Your task to perform on an android device: Search for sushi restaurants on Maps Image 0: 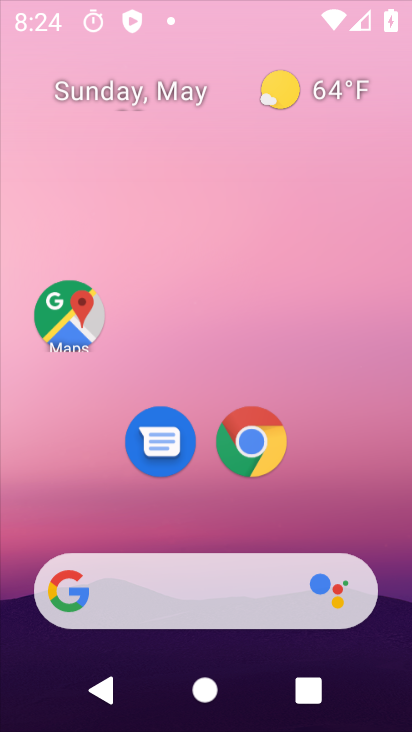
Step 0: click (320, 80)
Your task to perform on an android device: Search for sushi restaurants on Maps Image 1: 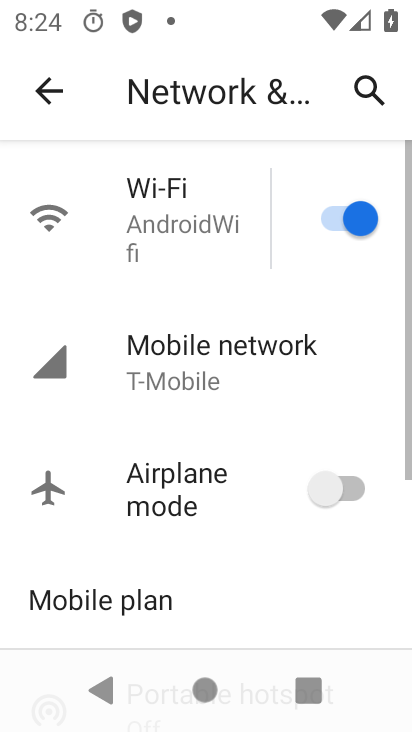
Step 1: click (298, 142)
Your task to perform on an android device: Search for sushi restaurants on Maps Image 2: 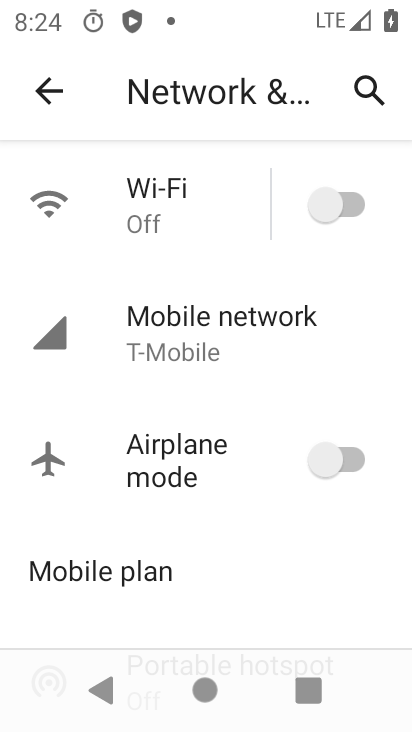
Step 2: press home button
Your task to perform on an android device: Search for sushi restaurants on Maps Image 3: 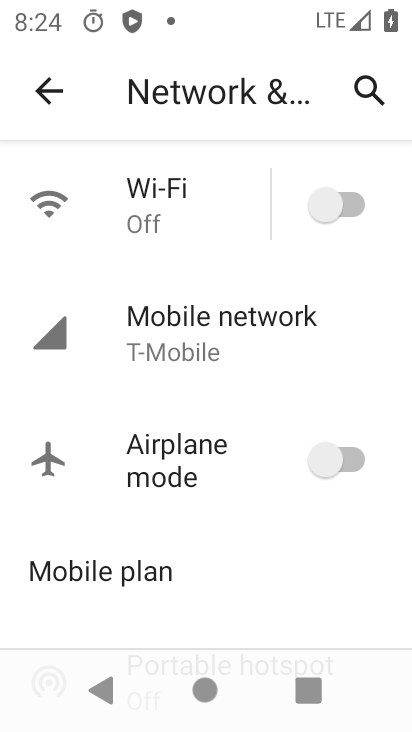
Step 3: drag from (325, 151) to (396, 0)
Your task to perform on an android device: Search for sushi restaurants on Maps Image 4: 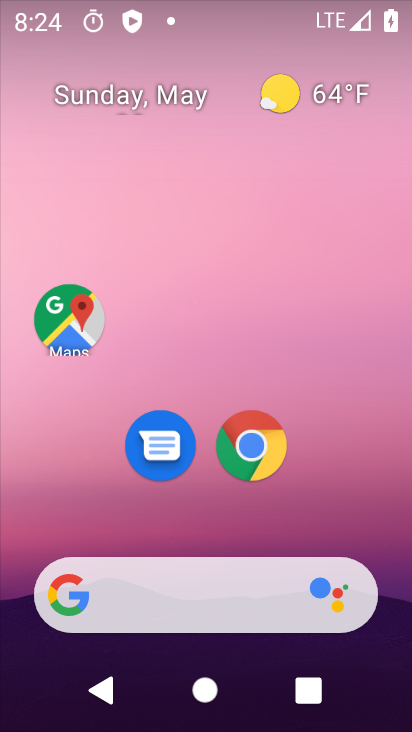
Step 4: drag from (202, 522) to (239, 19)
Your task to perform on an android device: Search for sushi restaurants on Maps Image 5: 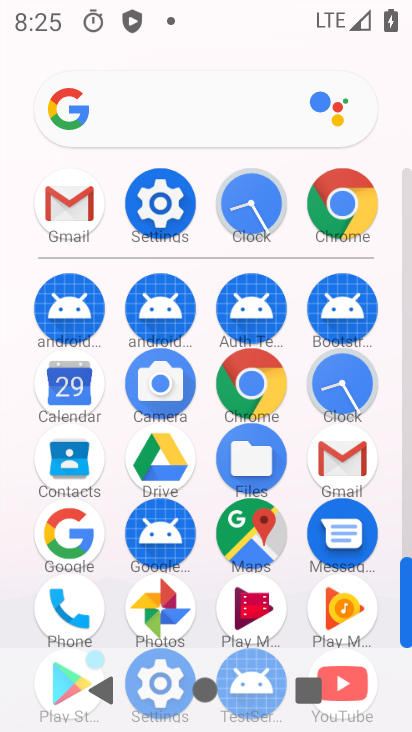
Step 5: click (263, 537)
Your task to perform on an android device: Search for sushi restaurants on Maps Image 6: 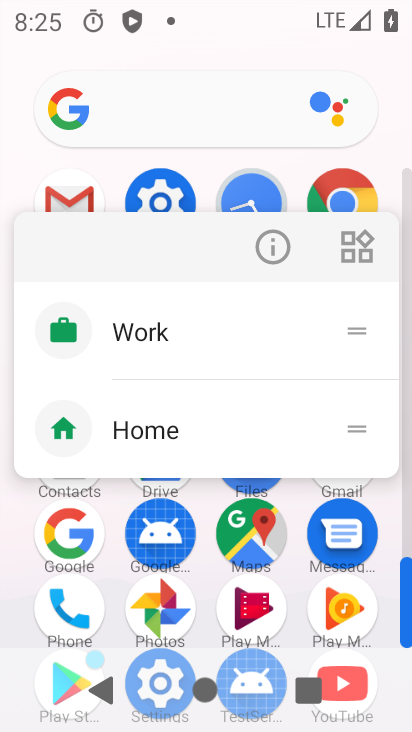
Step 6: click (278, 249)
Your task to perform on an android device: Search for sushi restaurants on Maps Image 7: 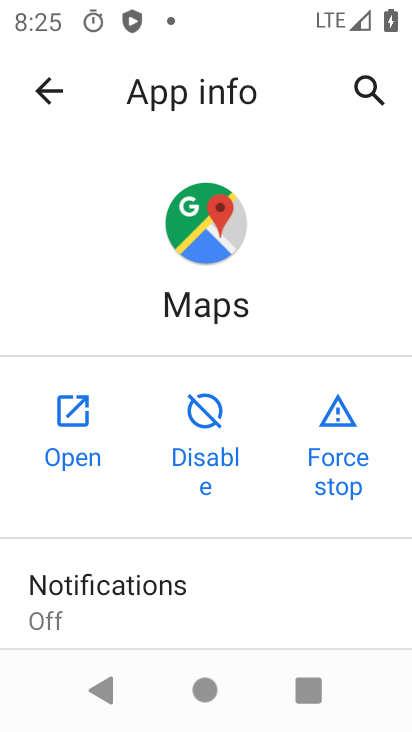
Step 7: click (73, 444)
Your task to perform on an android device: Search for sushi restaurants on Maps Image 8: 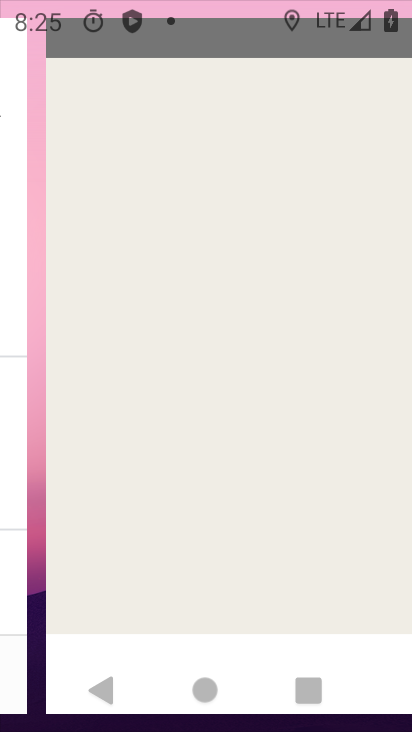
Step 8: click (72, 413)
Your task to perform on an android device: Search for sushi restaurants on Maps Image 9: 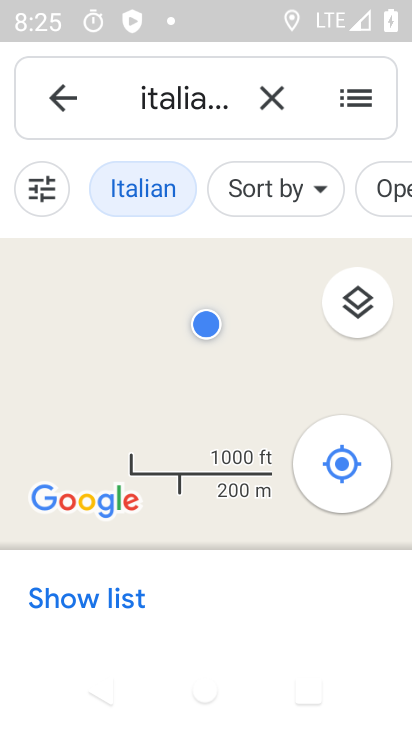
Step 9: click (264, 107)
Your task to perform on an android device: Search for sushi restaurants on Maps Image 10: 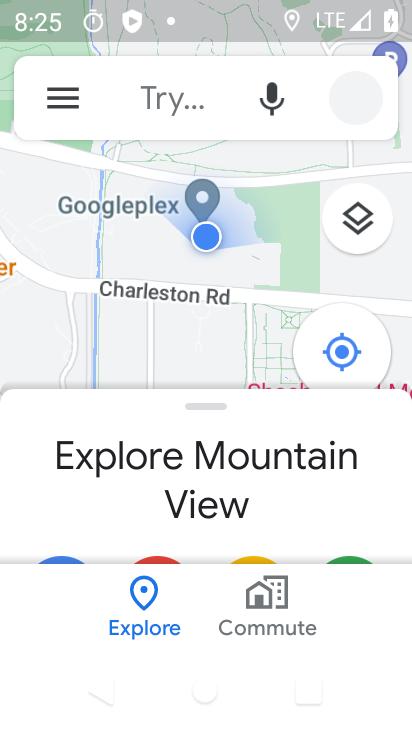
Step 10: click (174, 97)
Your task to perform on an android device: Search for sushi restaurants on Maps Image 11: 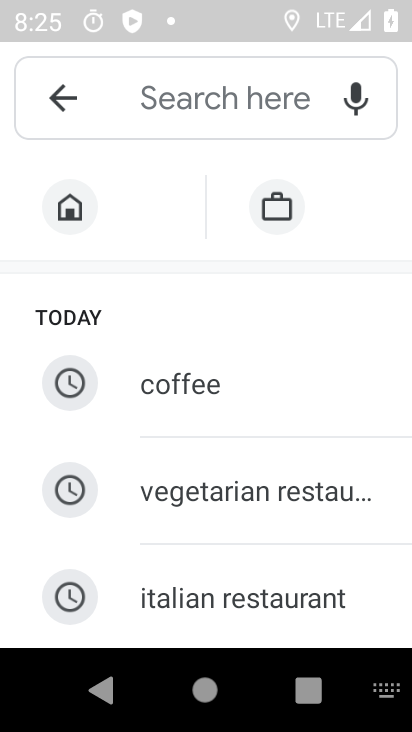
Step 11: drag from (227, 588) to (268, 180)
Your task to perform on an android device: Search for sushi restaurants on Maps Image 12: 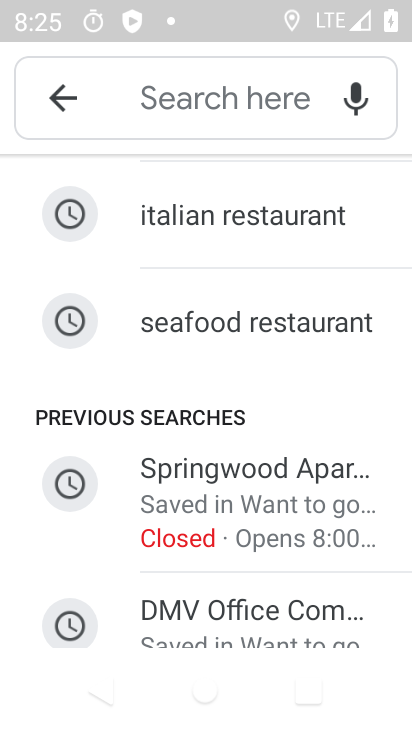
Step 12: drag from (219, 454) to (369, 6)
Your task to perform on an android device: Search for sushi restaurants on Maps Image 13: 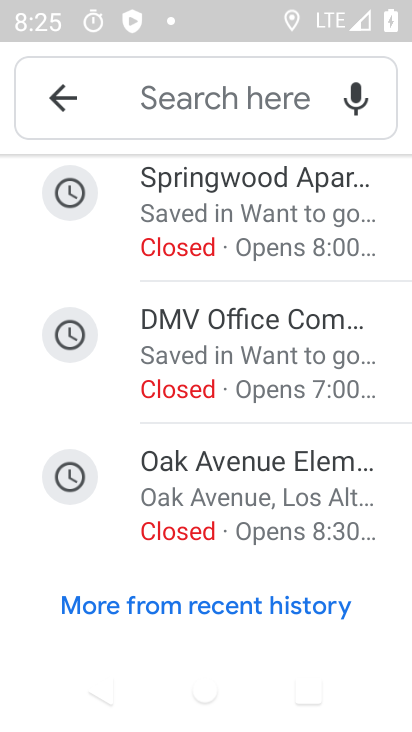
Step 13: drag from (249, 534) to (272, 228)
Your task to perform on an android device: Search for sushi restaurants on Maps Image 14: 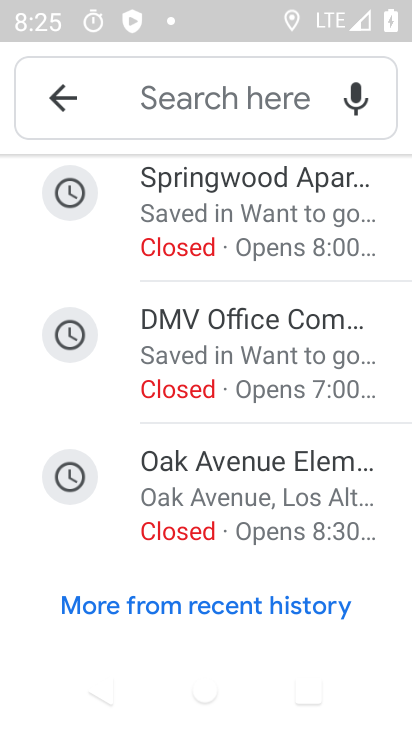
Step 14: click (177, 108)
Your task to perform on an android device: Search for sushi restaurants on Maps Image 15: 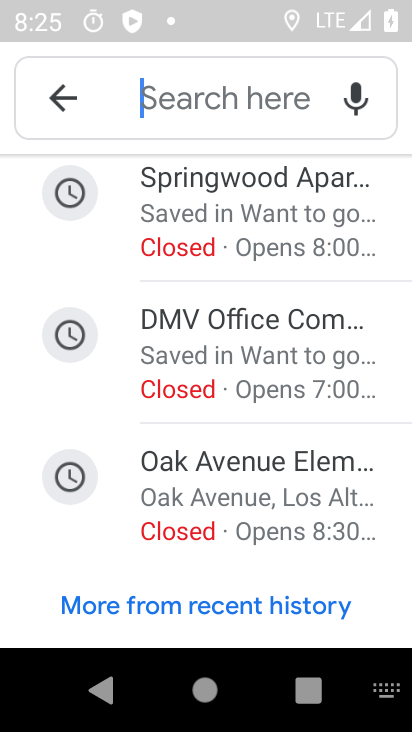
Step 15: type "sushi restaurants"
Your task to perform on an android device: Search for sushi restaurants on Maps Image 16: 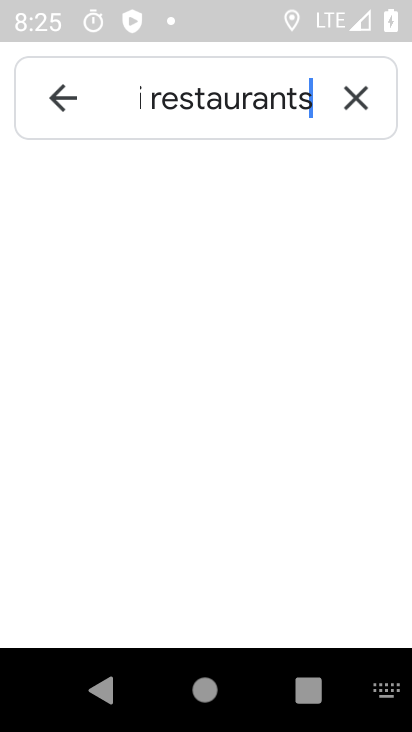
Step 16: type ""
Your task to perform on an android device: Search for sushi restaurants on Maps Image 17: 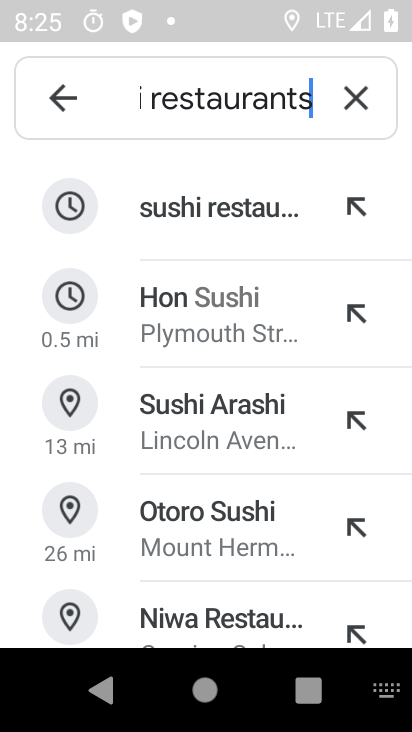
Step 17: click (151, 237)
Your task to perform on an android device: Search for sushi restaurants on Maps Image 18: 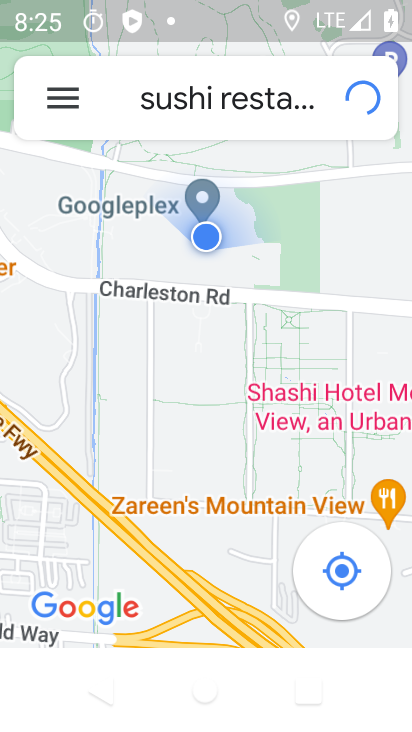
Step 18: task complete